Your task to perform on an android device: Open location settings Image 0: 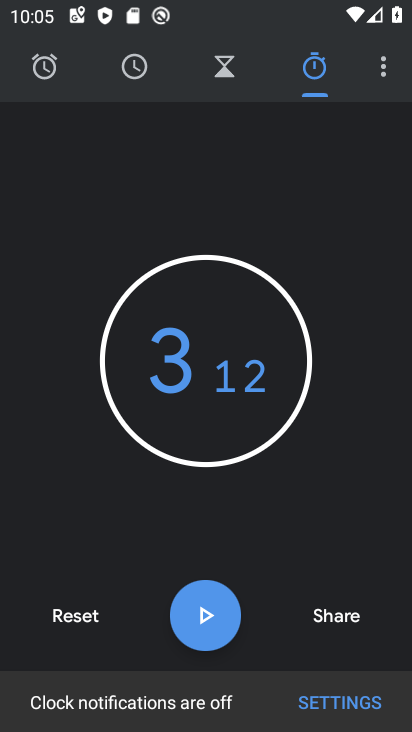
Step 0: press home button
Your task to perform on an android device: Open location settings Image 1: 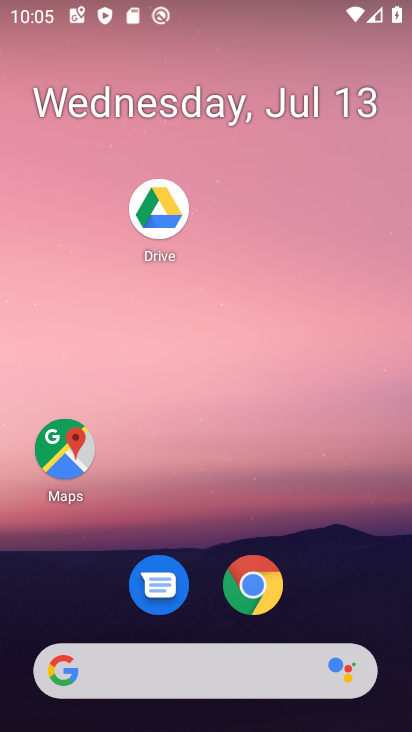
Step 1: drag from (181, 668) to (309, 99)
Your task to perform on an android device: Open location settings Image 2: 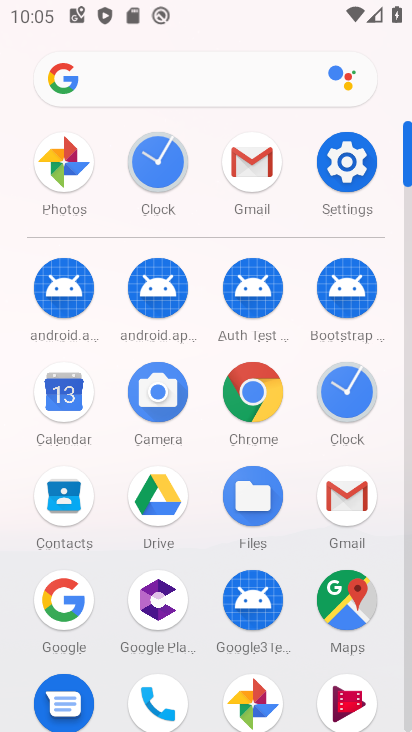
Step 2: click (348, 170)
Your task to perform on an android device: Open location settings Image 3: 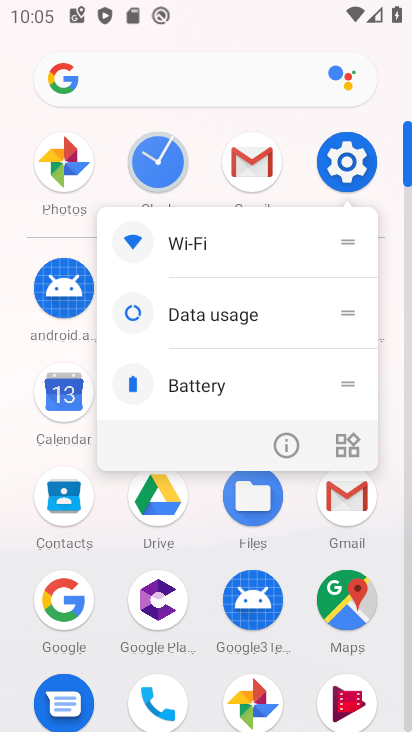
Step 3: click (347, 156)
Your task to perform on an android device: Open location settings Image 4: 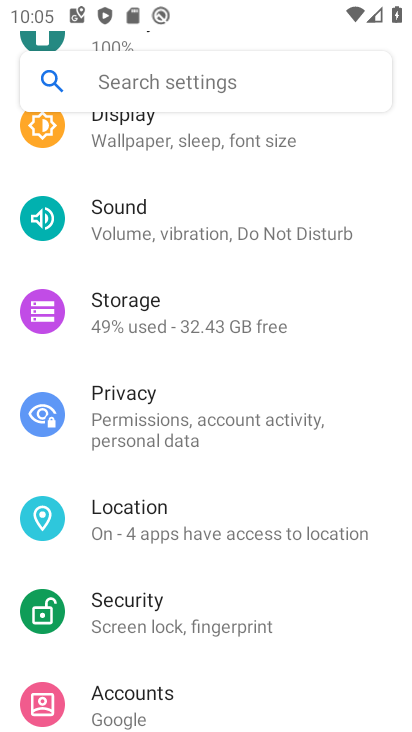
Step 4: click (145, 518)
Your task to perform on an android device: Open location settings Image 5: 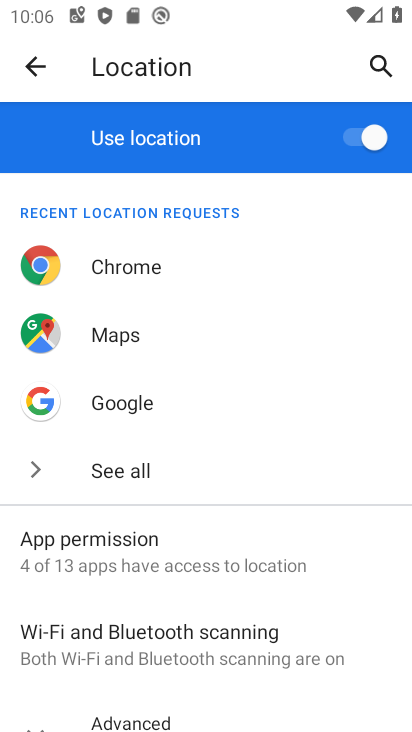
Step 5: task complete